Your task to perform on an android device: Show me recent news Image 0: 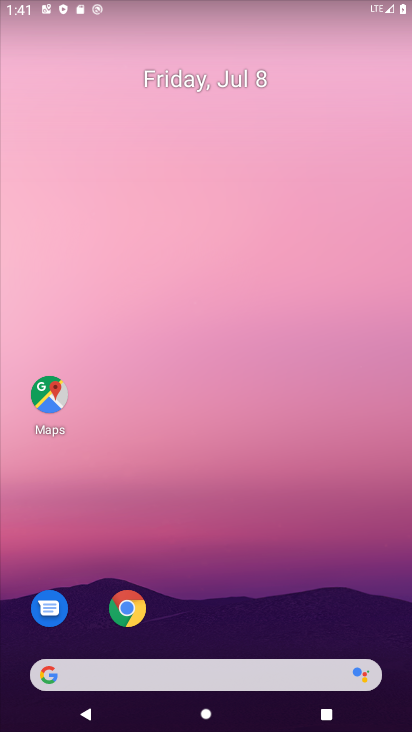
Step 0: drag from (22, 228) to (410, 226)
Your task to perform on an android device: Show me recent news Image 1: 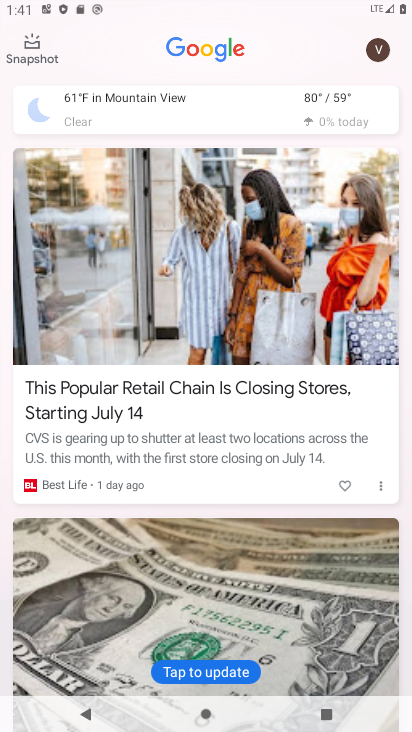
Step 1: task complete